Your task to perform on an android device: allow notifications from all sites in the chrome app Image 0: 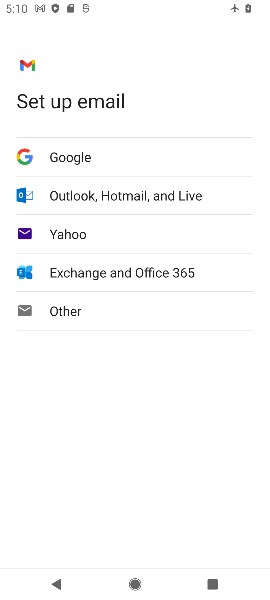
Step 0: press home button
Your task to perform on an android device: allow notifications from all sites in the chrome app Image 1: 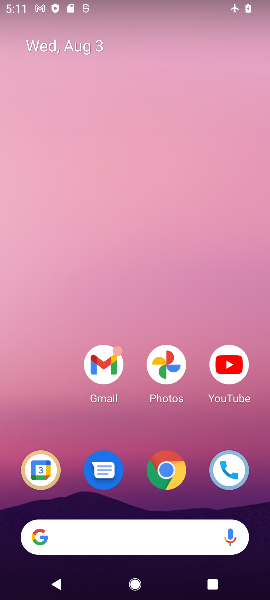
Step 1: drag from (64, 392) to (123, 21)
Your task to perform on an android device: allow notifications from all sites in the chrome app Image 2: 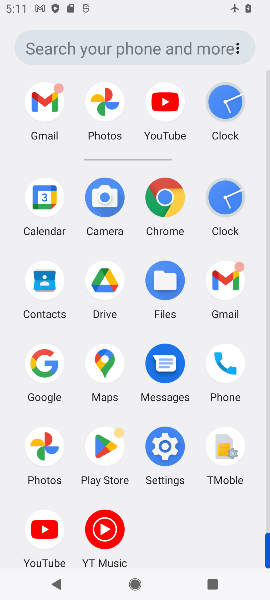
Step 2: click (167, 197)
Your task to perform on an android device: allow notifications from all sites in the chrome app Image 3: 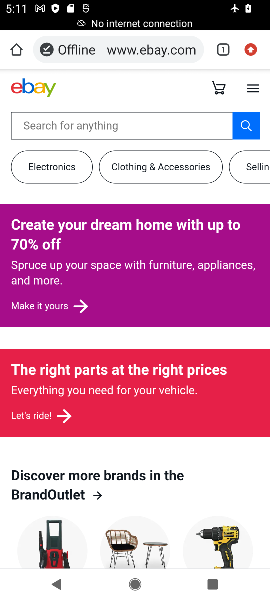
Step 3: drag from (260, 46) to (152, 492)
Your task to perform on an android device: allow notifications from all sites in the chrome app Image 4: 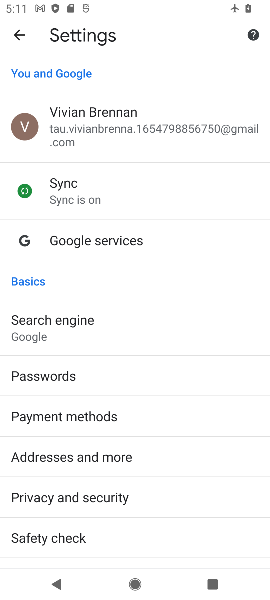
Step 4: drag from (136, 522) to (141, 244)
Your task to perform on an android device: allow notifications from all sites in the chrome app Image 5: 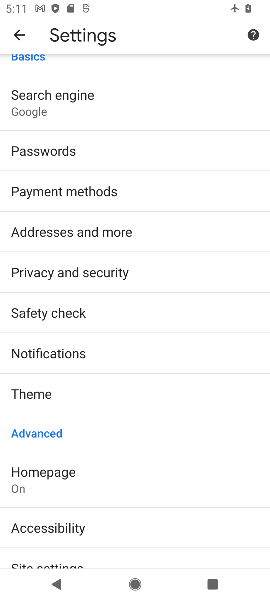
Step 5: click (51, 349)
Your task to perform on an android device: allow notifications from all sites in the chrome app Image 6: 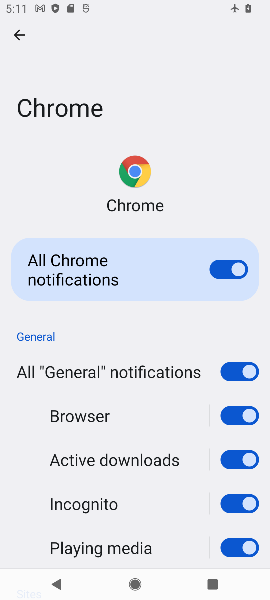
Step 6: task complete